Your task to perform on an android device: clear history in the chrome app Image 0: 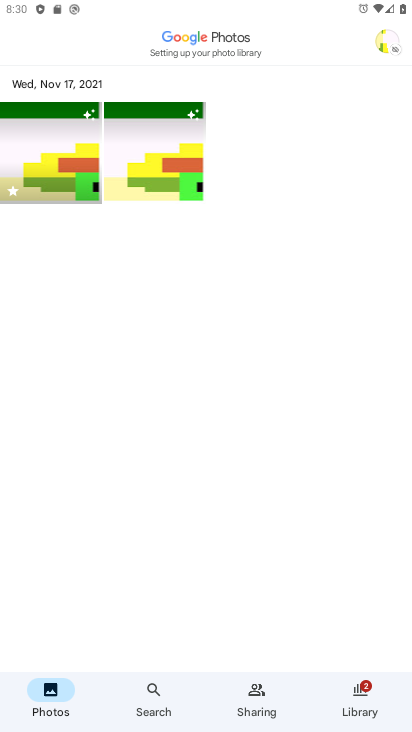
Step 0: press home button
Your task to perform on an android device: clear history in the chrome app Image 1: 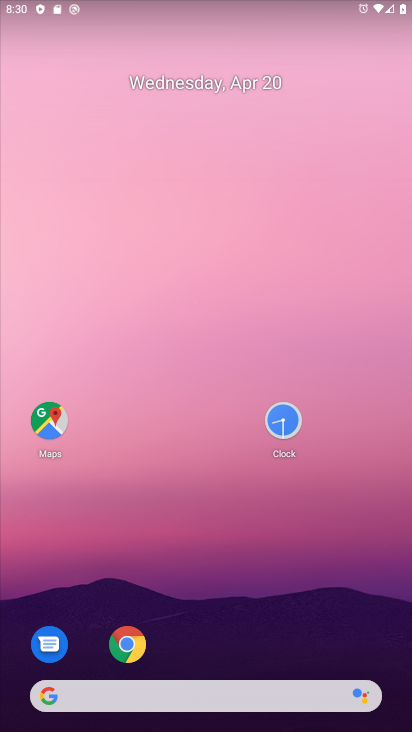
Step 1: drag from (163, 674) to (216, 16)
Your task to perform on an android device: clear history in the chrome app Image 2: 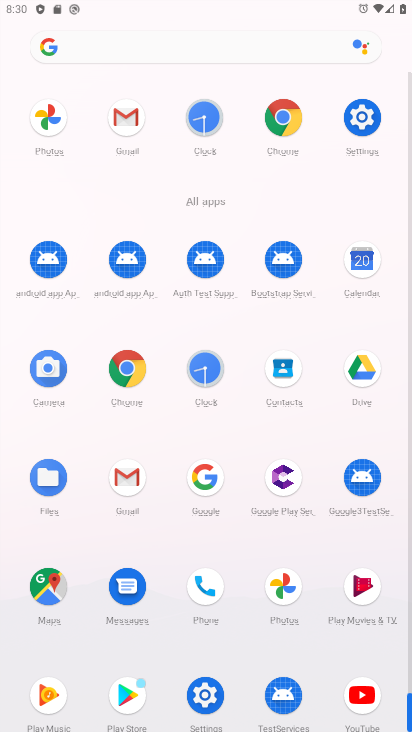
Step 2: click (124, 373)
Your task to perform on an android device: clear history in the chrome app Image 3: 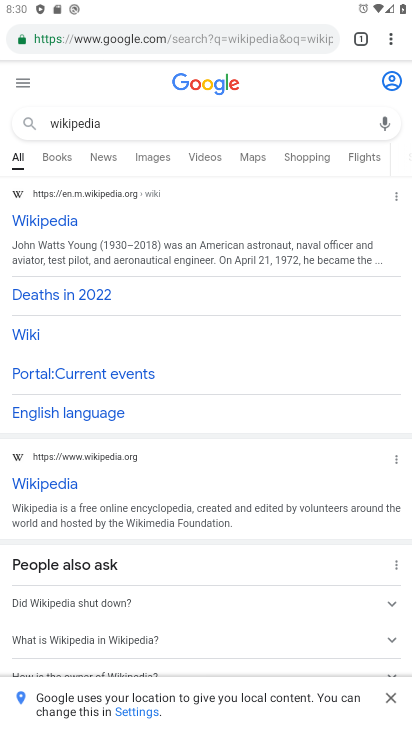
Step 3: click (389, 32)
Your task to perform on an android device: clear history in the chrome app Image 4: 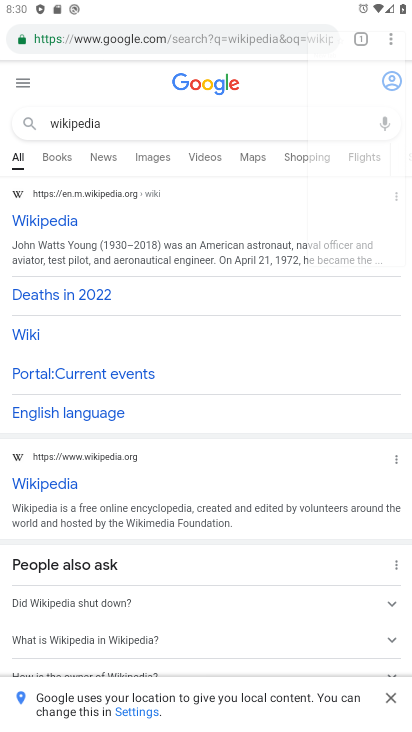
Step 4: drag from (389, 33) to (240, 219)
Your task to perform on an android device: clear history in the chrome app Image 5: 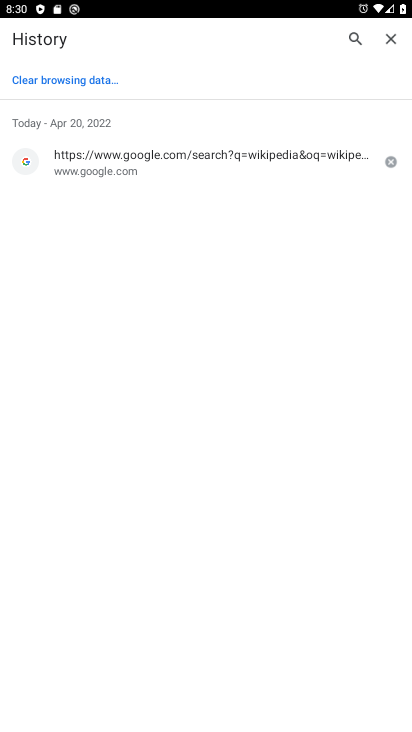
Step 5: click (67, 76)
Your task to perform on an android device: clear history in the chrome app Image 6: 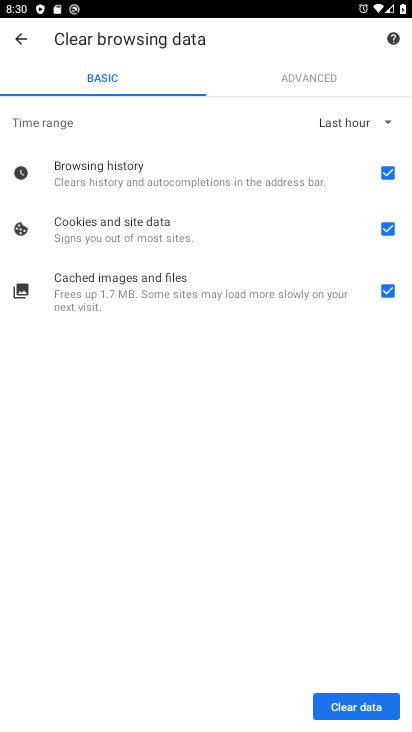
Step 6: click (351, 710)
Your task to perform on an android device: clear history in the chrome app Image 7: 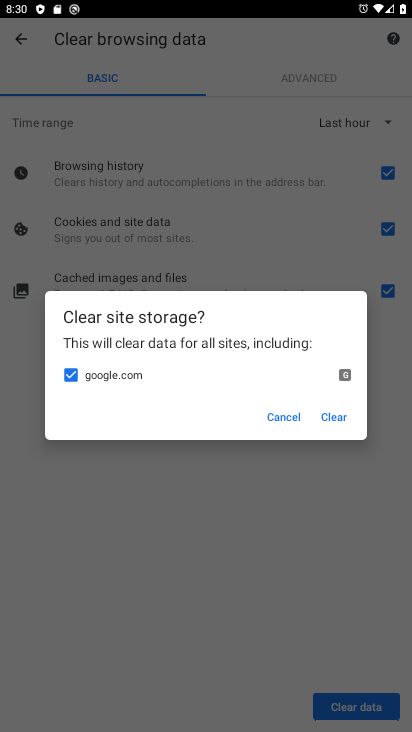
Step 7: click (337, 417)
Your task to perform on an android device: clear history in the chrome app Image 8: 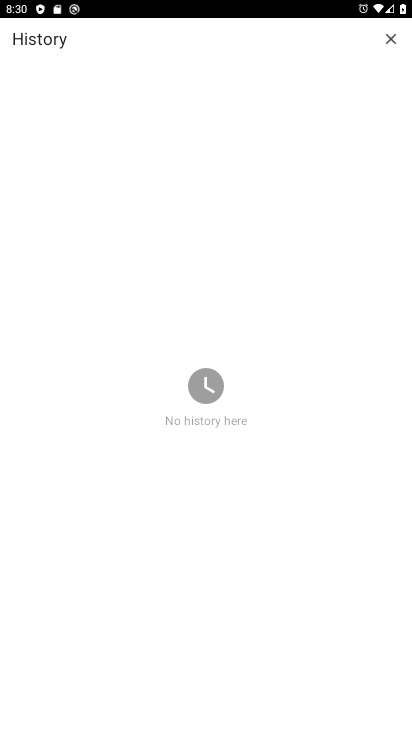
Step 8: task complete